Your task to perform on an android device: Go to Maps Image 0: 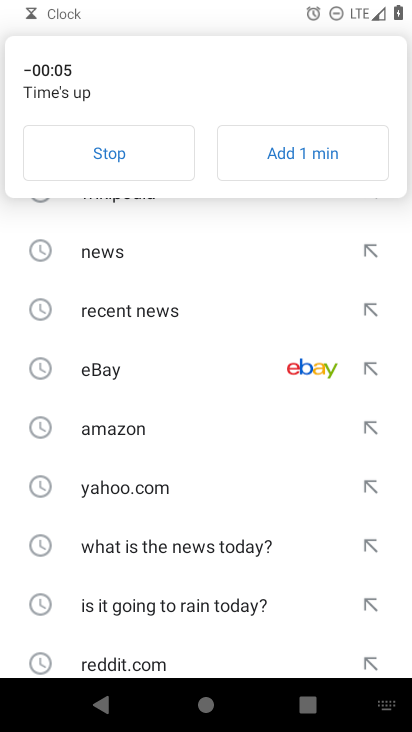
Step 0: press home button
Your task to perform on an android device: Go to Maps Image 1: 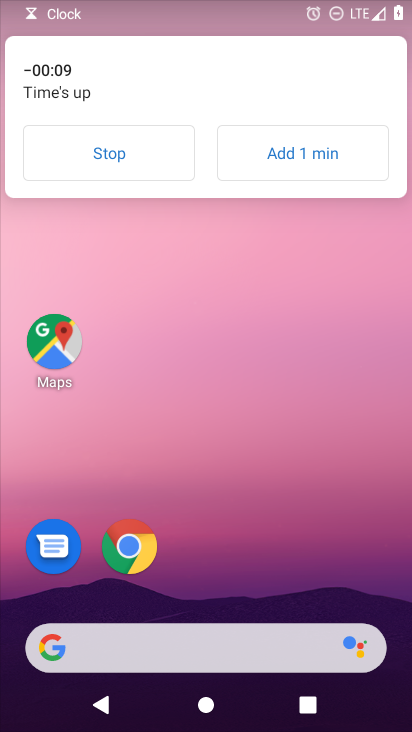
Step 1: drag from (303, 554) to (328, 229)
Your task to perform on an android device: Go to Maps Image 2: 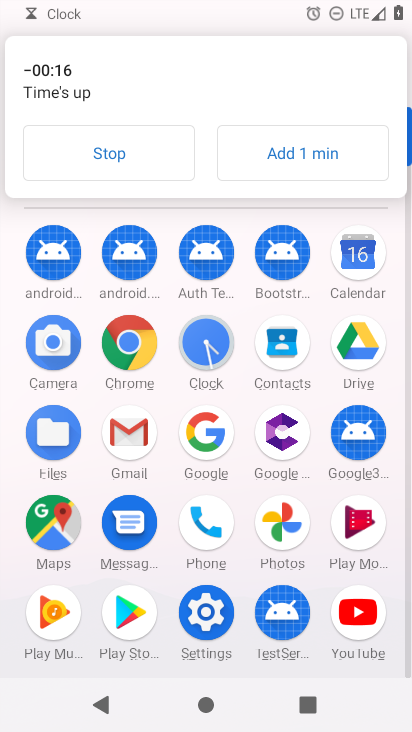
Step 2: click (56, 525)
Your task to perform on an android device: Go to Maps Image 3: 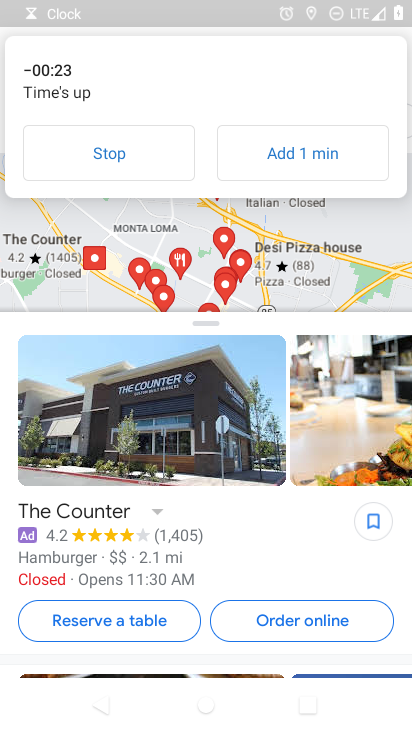
Step 3: task complete